Your task to perform on an android device: turn on javascript in the chrome app Image 0: 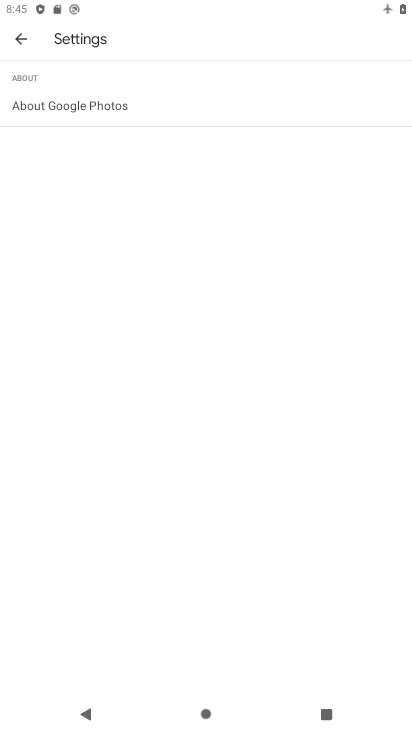
Step 0: press home button
Your task to perform on an android device: turn on javascript in the chrome app Image 1: 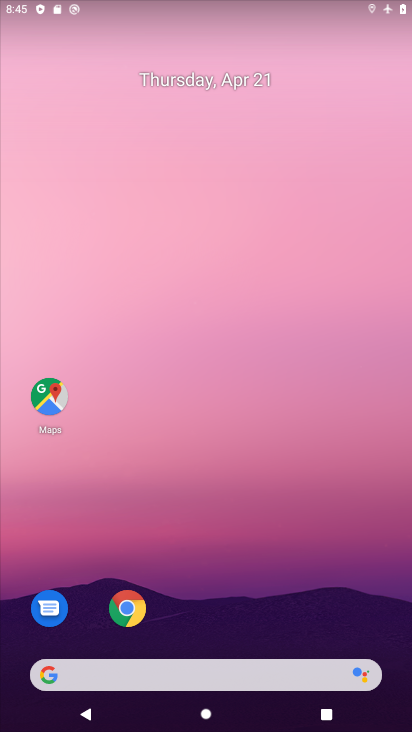
Step 1: click (129, 610)
Your task to perform on an android device: turn on javascript in the chrome app Image 2: 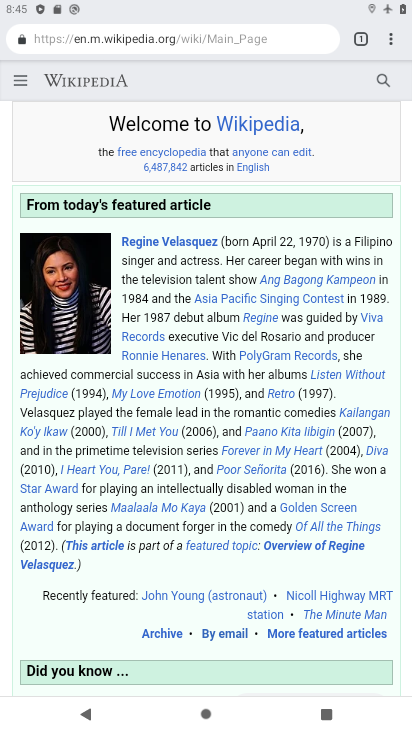
Step 2: click (391, 44)
Your task to perform on an android device: turn on javascript in the chrome app Image 3: 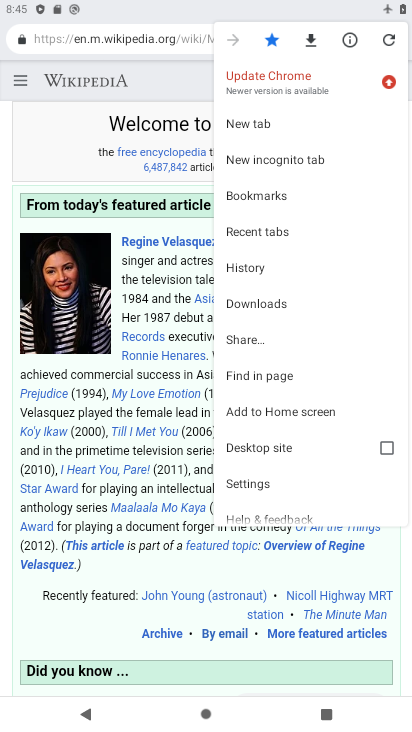
Step 3: click (250, 480)
Your task to perform on an android device: turn on javascript in the chrome app Image 4: 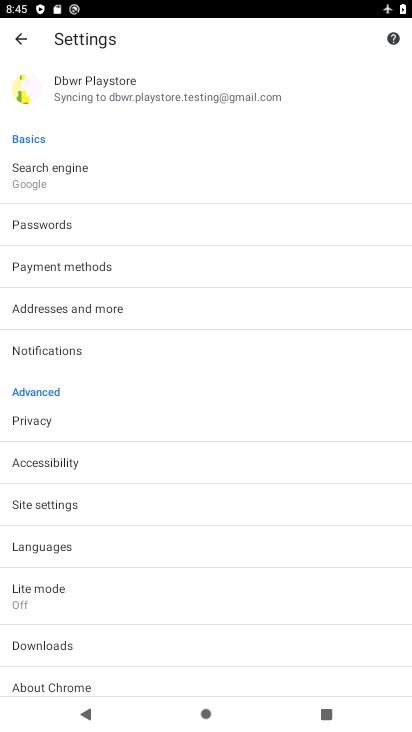
Step 4: click (46, 503)
Your task to perform on an android device: turn on javascript in the chrome app Image 5: 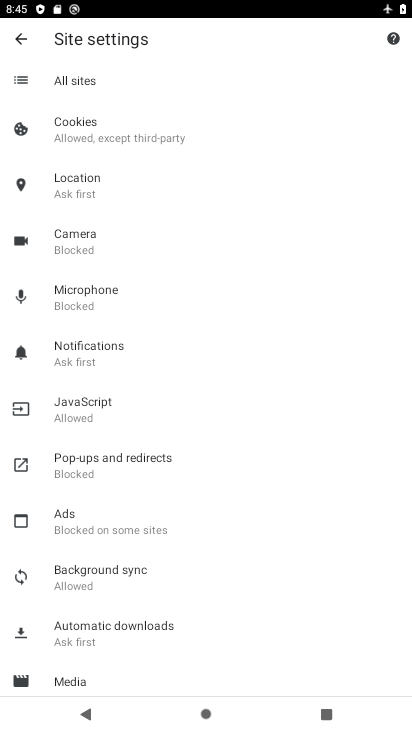
Step 5: click (77, 395)
Your task to perform on an android device: turn on javascript in the chrome app Image 6: 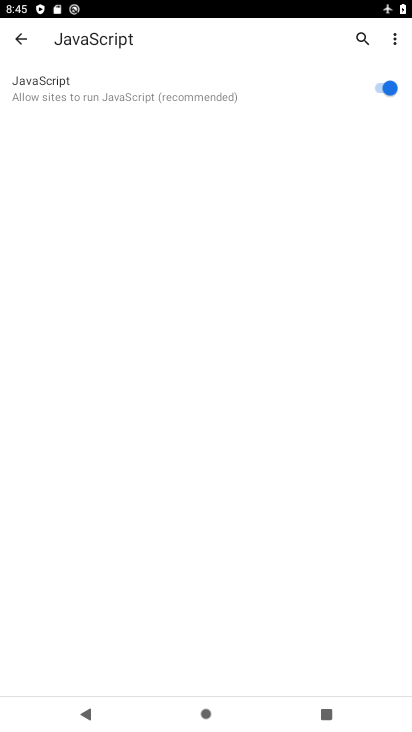
Step 6: task complete